Your task to perform on an android device: Set the phone to "Do not disturb". Image 0: 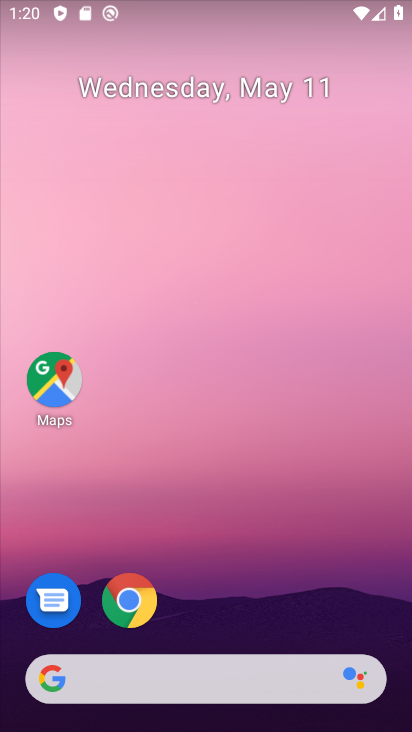
Step 0: drag from (177, 74) to (211, 471)
Your task to perform on an android device: Set the phone to "Do not disturb". Image 1: 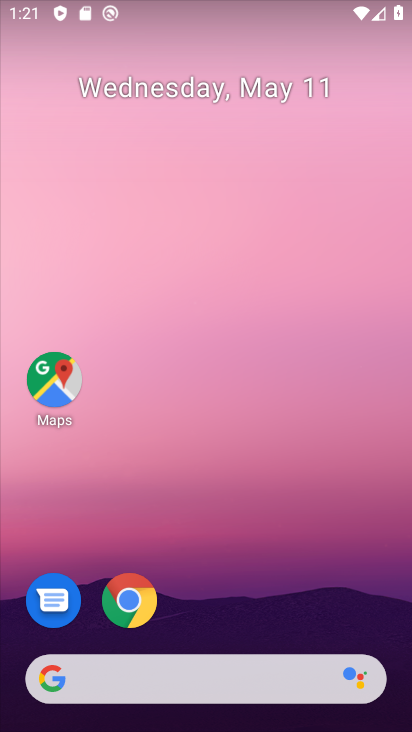
Step 1: drag from (247, 3) to (291, 472)
Your task to perform on an android device: Set the phone to "Do not disturb". Image 2: 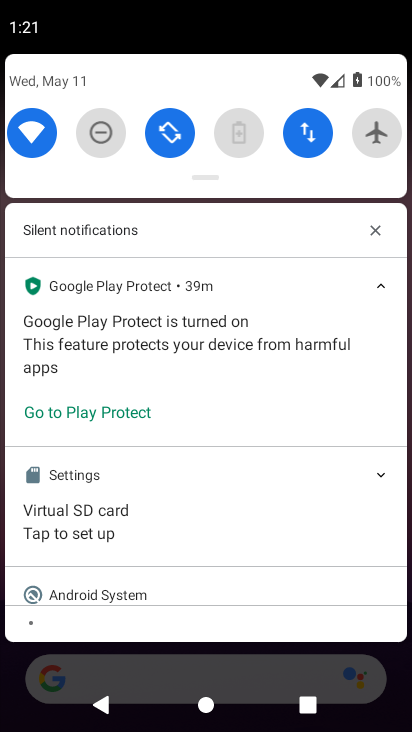
Step 2: click (94, 131)
Your task to perform on an android device: Set the phone to "Do not disturb". Image 3: 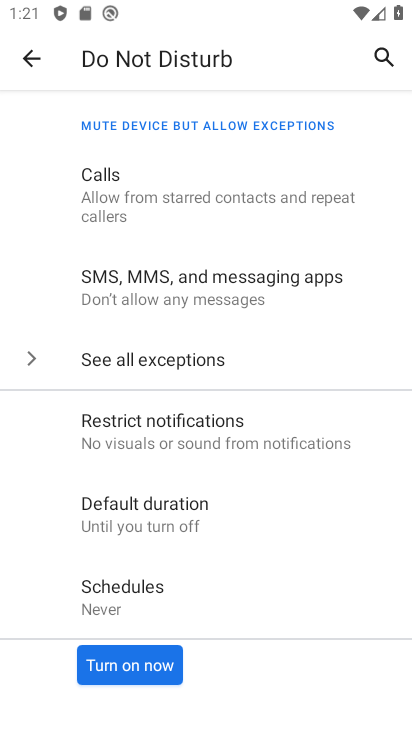
Step 3: task complete